Your task to perform on an android device: Go to wifi settings Image 0: 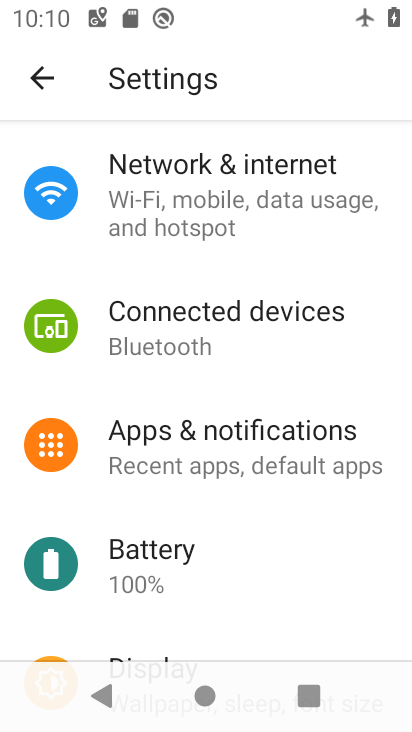
Step 0: press home button
Your task to perform on an android device: Go to wifi settings Image 1: 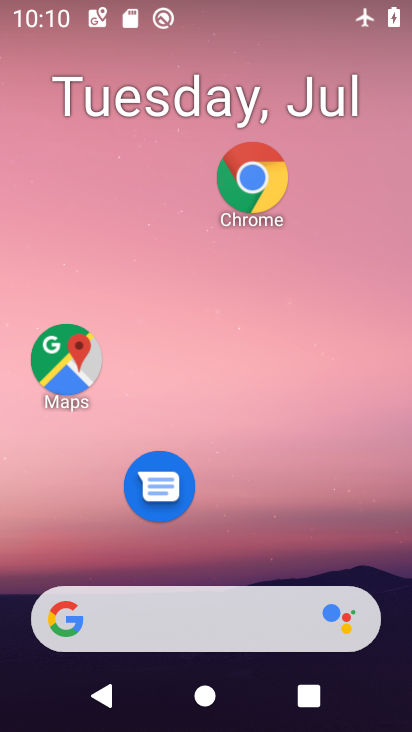
Step 1: drag from (264, 288) to (295, 65)
Your task to perform on an android device: Go to wifi settings Image 2: 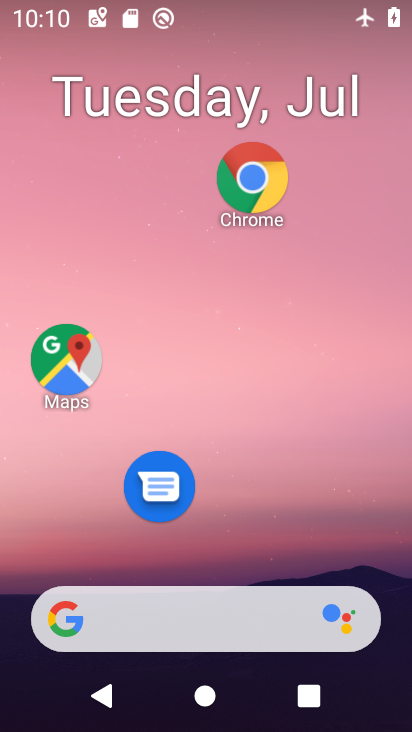
Step 2: drag from (223, 663) to (280, 64)
Your task to perform on an android device: Go to wifi settings Image 3: 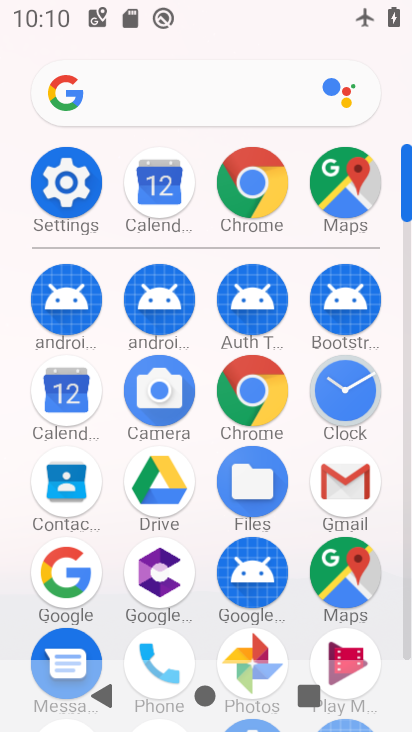
Step 3: click (86, 193)
Your task to perform on an android device: Go to wifi settings Image 4: 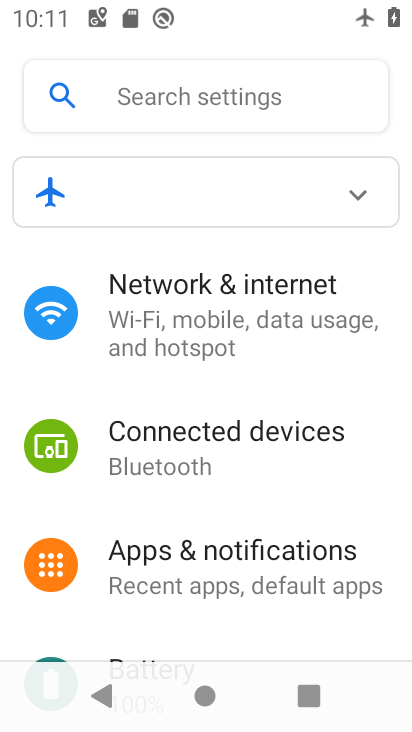
Step 4: click (207, 337)
Your task to perform on an android device: Go to wifi settings Image 5: 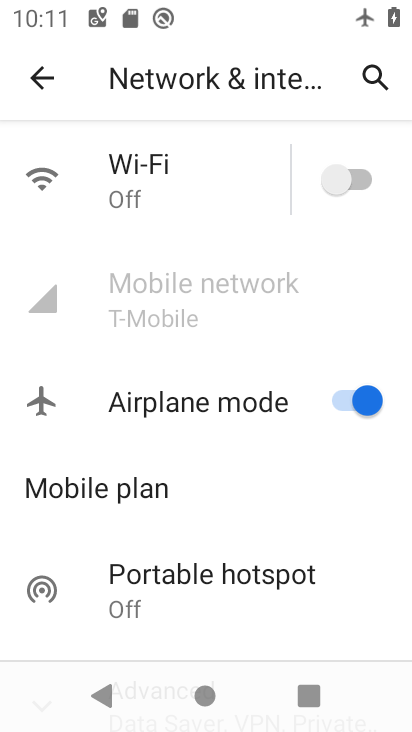
Step 5: click (152, 148)
Your task to perform on an android device: Go to wifi settings Image 6: 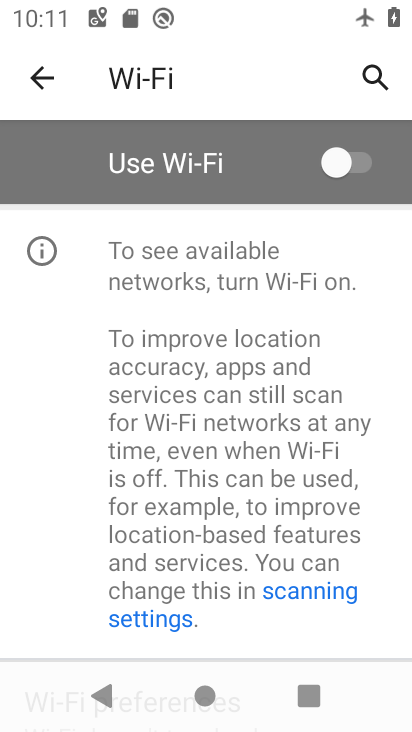
Step 6: task complete